Your task to perform on an android device: How do I get to the nearest McDonalds? Image 0: 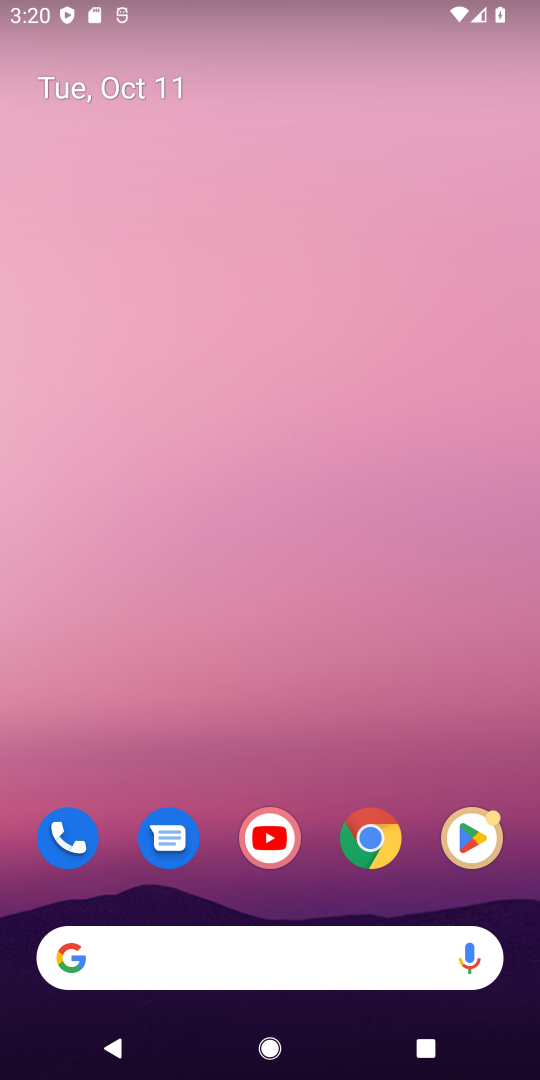
Step 0: click (259, 948)
Your task to perform on an android device: How do I get to the nearest McDonalds? Image 1: 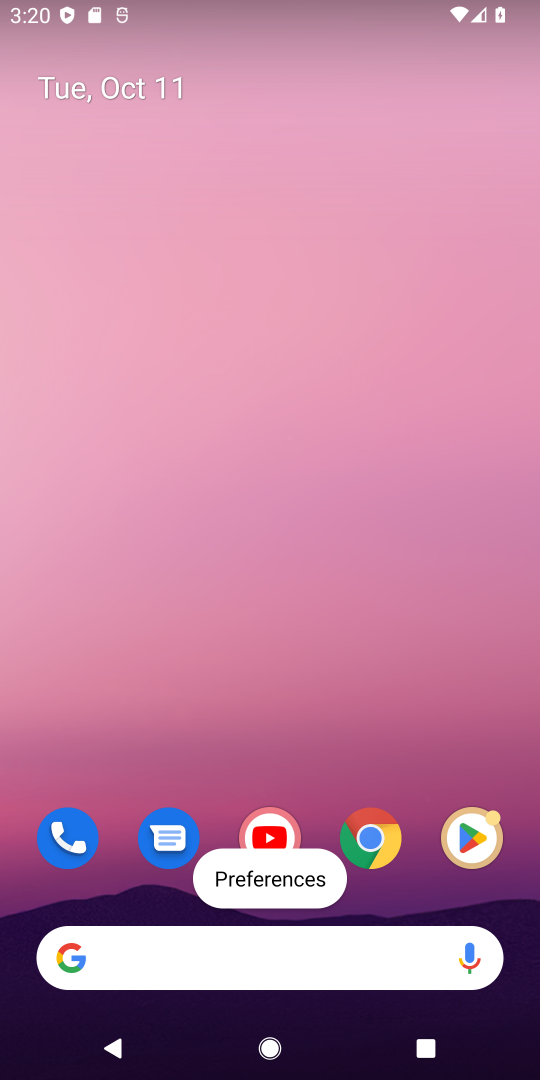
Step 1: click (207, 970)
Your task to perform on an android device: How do I get to the nearest McDonalds? Image 2: 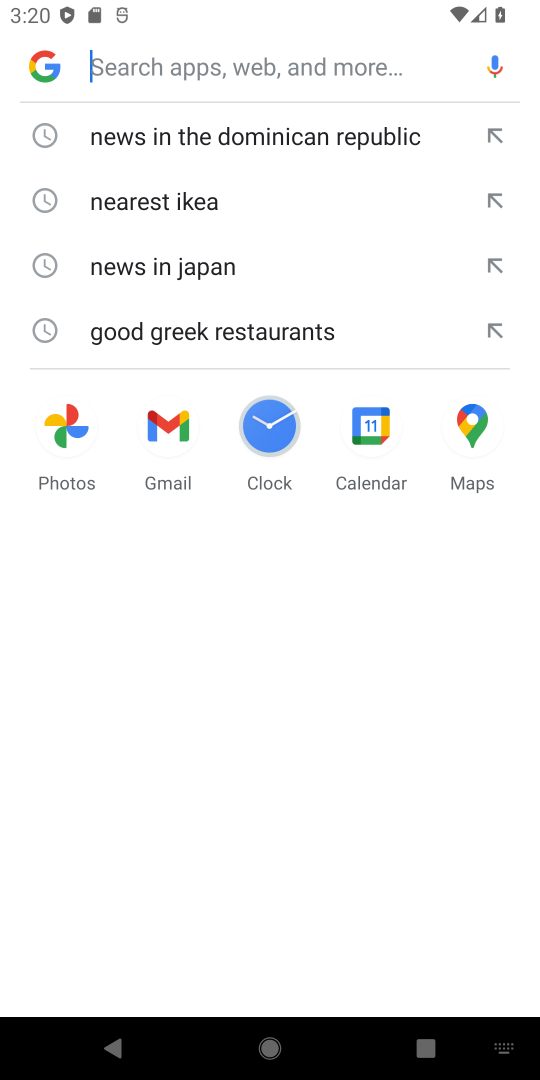
Step 2: type "nearest McDonalds"
Your task to perform on an android device: How do I get to the nearest McDonalds? Image 3: 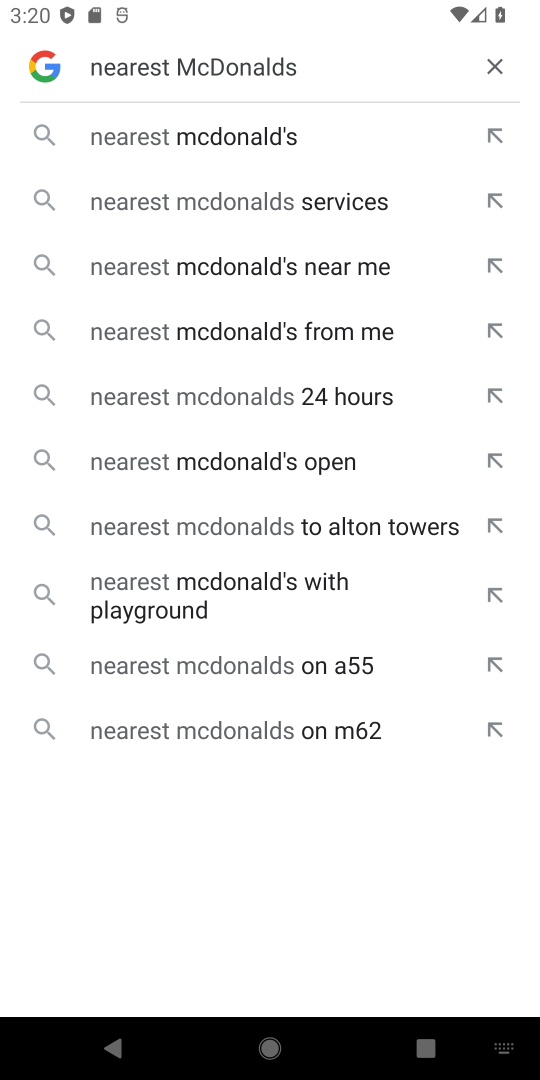
Step 3: click (300, 145)
Your task to perform on an android device: How do I get to the nearest McDonalds? Image 4: 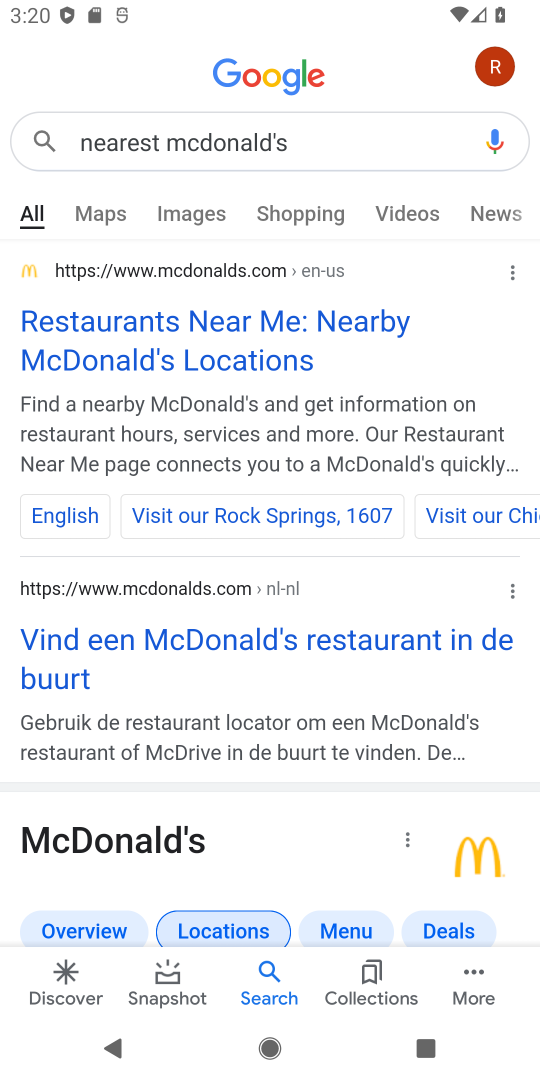
Step 4: drag from (258, 725) to (288, 294)
Your task to perform on an android device: How do I get to the nearest McDonalds? Image 5: 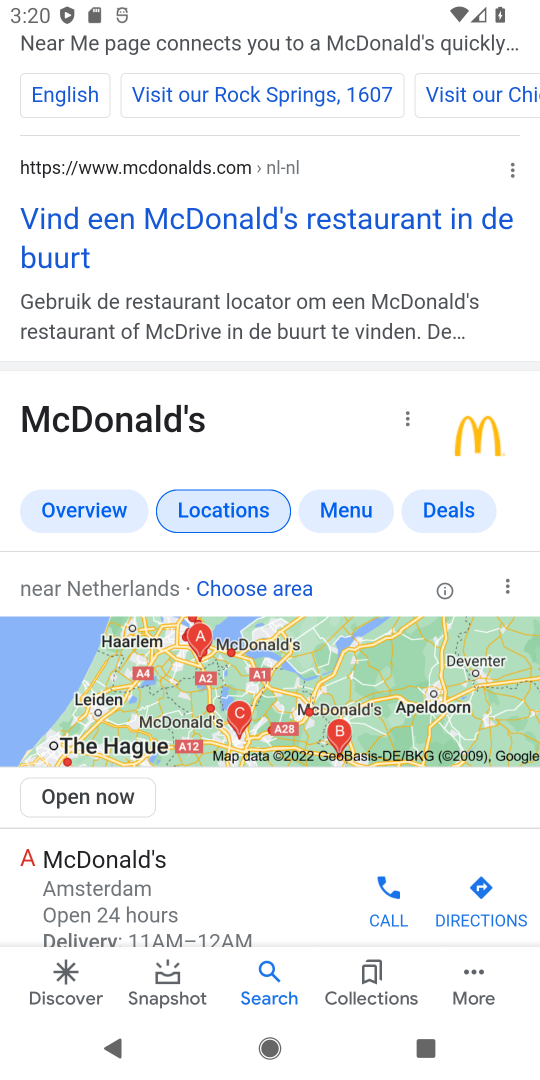
Step 5: drag from (315, 675) to (331, 347)
Your task to perform on an android device: How do I get to the nearest McDonalds? Image 6: 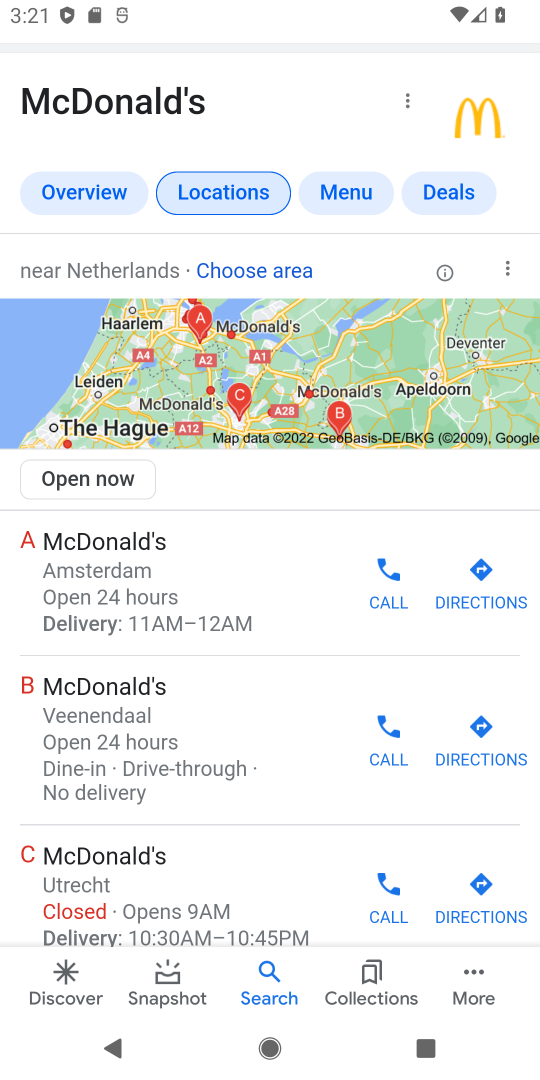
Step 6: click (480, 567)
Your task to perform on an android device: How do I get to the nearest McDonalds? Image 7: 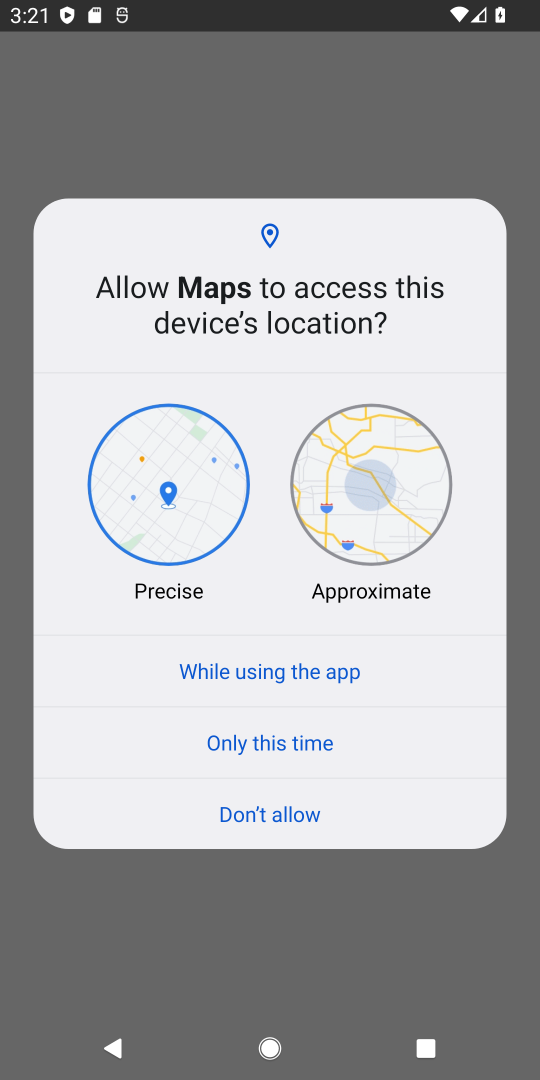
Step 7: task complete